Your task to perform on an android device: Do I have any events tomorrow? Image 0: 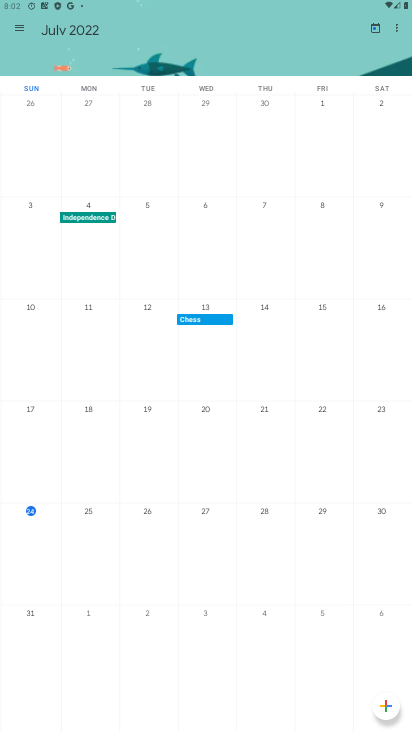
Step 0: press home button
Your task to perform on an android device: Do I have any events tomorrow? Image 1: 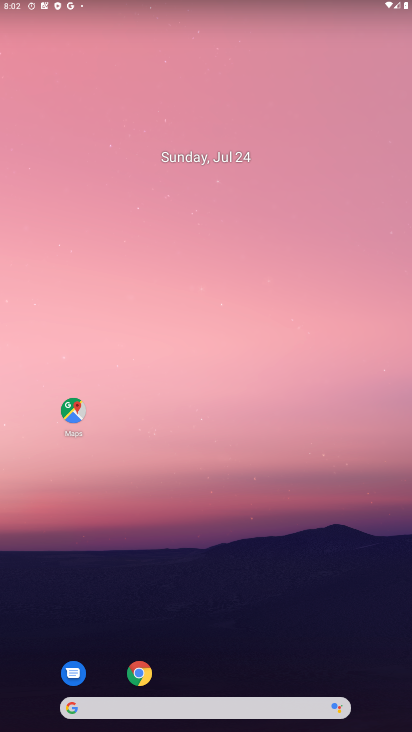
Step 1: drag from (11, 691) to (209, 140)
Your task to perform on an android device: Do I have any events tomorrow? Image 2: 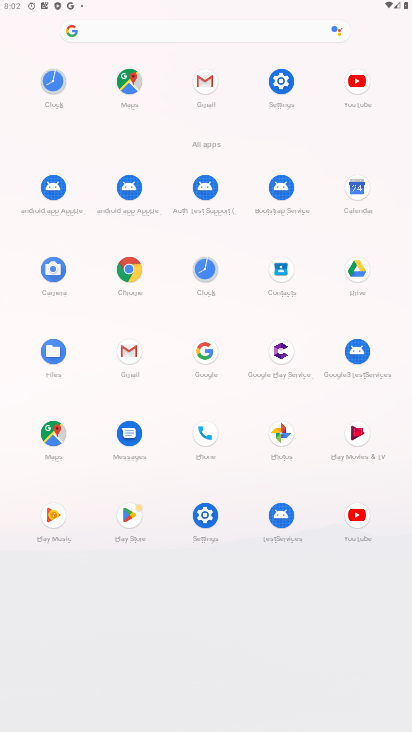
Step 2: click (347, 189)
Your task to perform on an android device: Do I have any events tomorrow? Image 3: 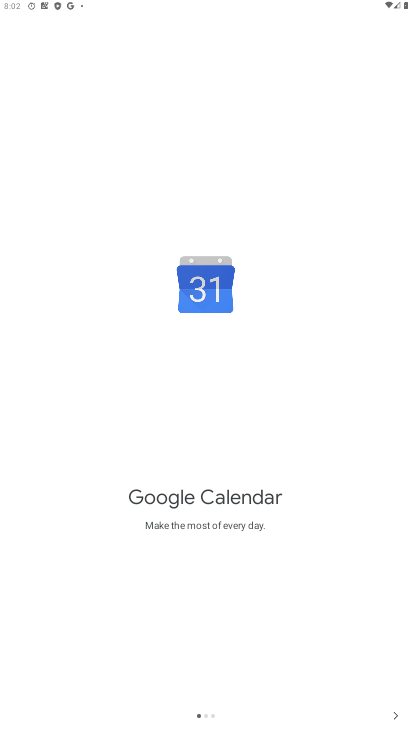
Step 3: click (396, 719)
Your task to perform on an android device: Do I have any events tomorrow? Image 4: 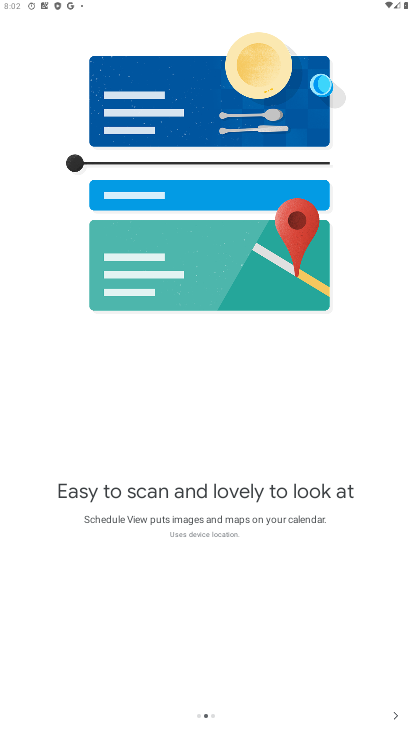
Step 4: click (396, 721)
Your task to perform on an android device: Do I have any events tomorrow? Image 5: 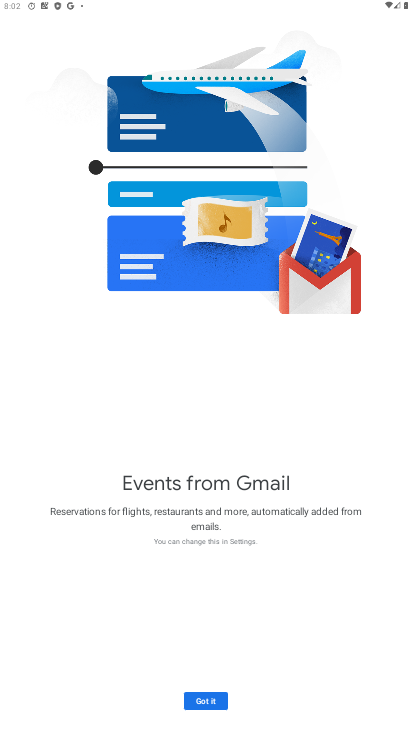
Step 5: click (197, 698)
Your task to perform on an android device: Do I have any events tomorrow? Image 6: 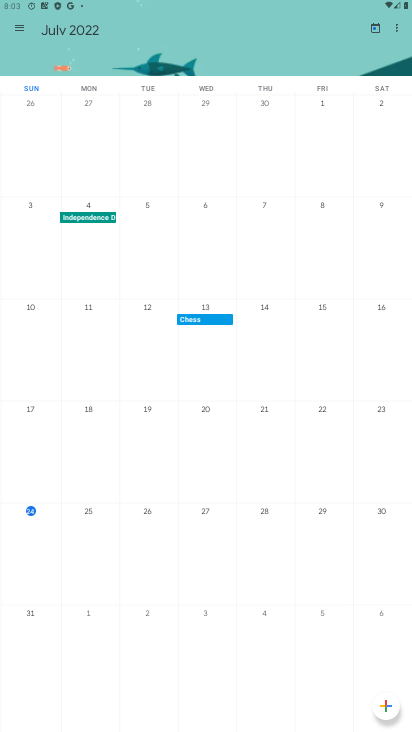
Step 6: task complete